Your task to perform on an android device: uninstall "Skype" Image 0: 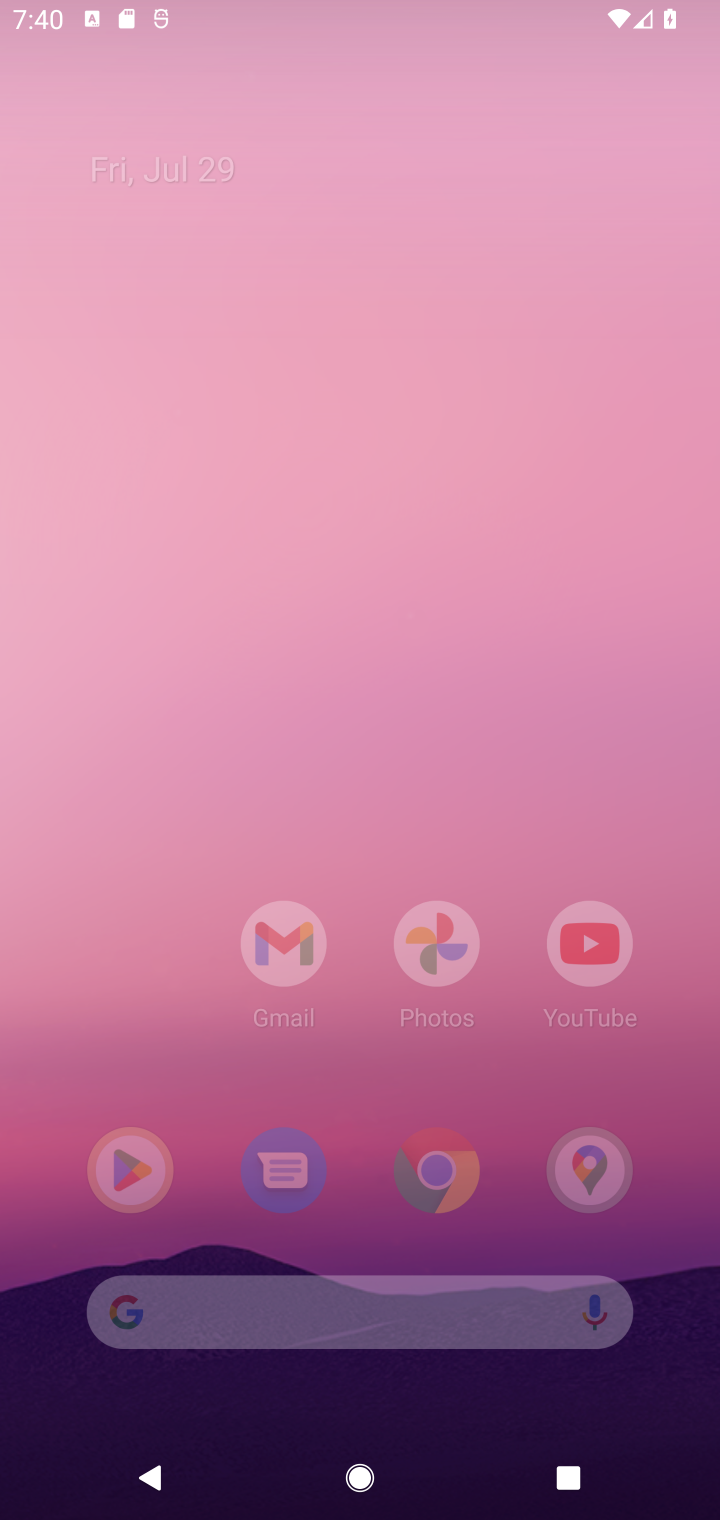
Step 0: task impossible